Your task to perform on an android device: Open Maps and search for coffee Image 0: 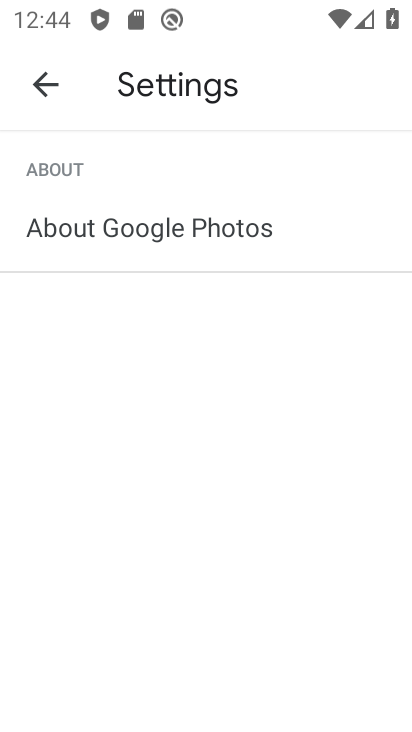
Step 0: press home button
Your task to perform on an android device: Open Maps and search for coffee Image 1: 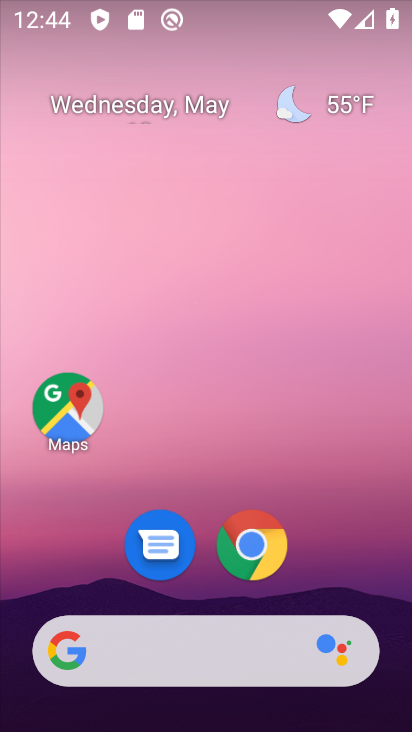
Step 1: click (58, 391)
Your task to perform on an android device: Open Maps and search for coffee Image 2: 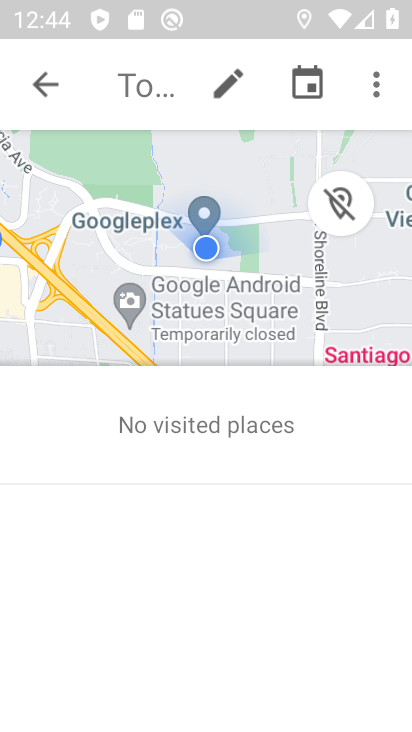
Step 2: click (55, 87)
Your task to perform on an android device: Open Maps and search for coffee Image 3: 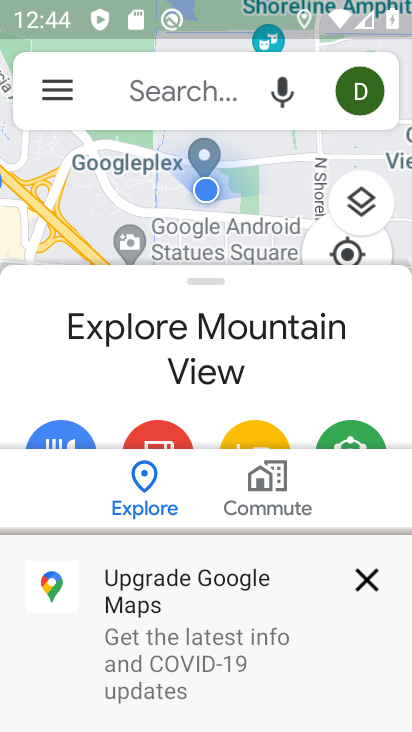
Step 3: click (175, 94)
Your task to perform on an android device: Open Maps and search for coffee Image 4: 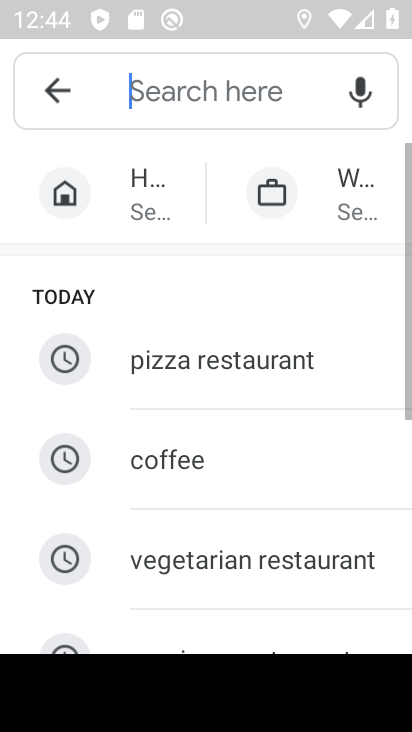
Step 4: click (210, 444)
Your task to perform on an android device: Open Maps and search for coffee Image 5: 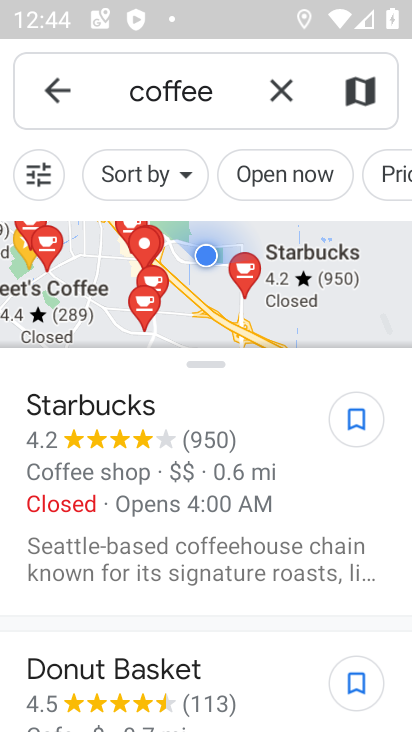
Step 5: task complete